Your task to perform on an android device: Open Amazon Image 0: 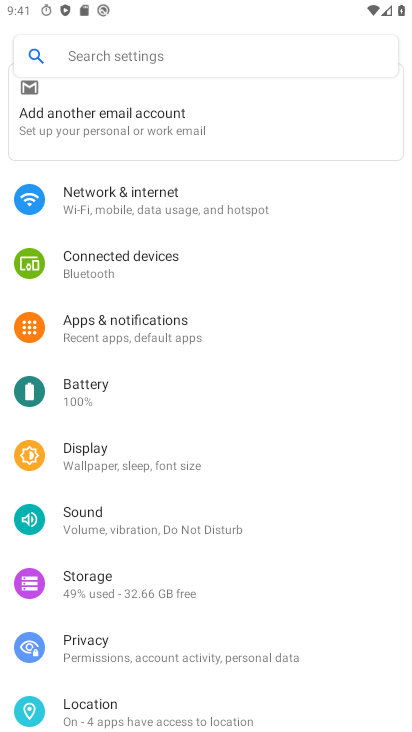
Step 0: press home button
Your task to perform on an android device: Open Amazon Image 1: 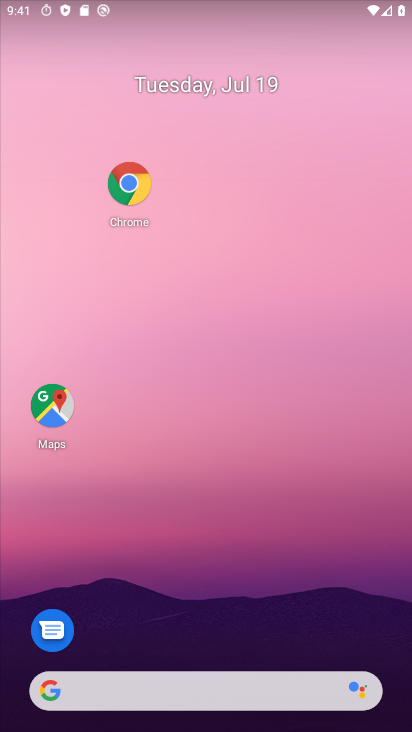
Step 1: click (141, 183)
Your task to perform on an android device: Open Amazon Image 2: 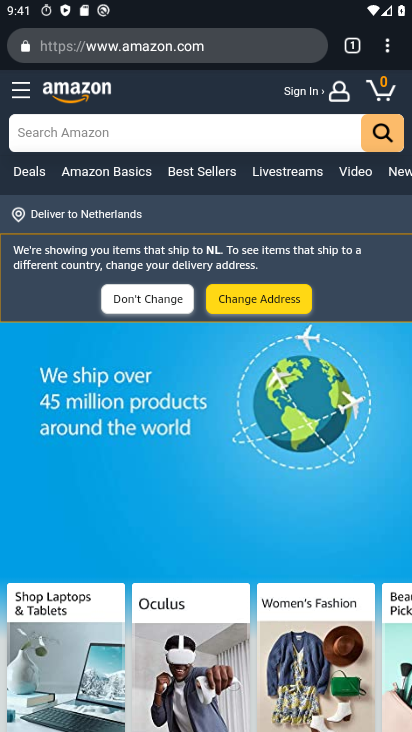
Step 2: task complete